Your task to perform on an android device: What's on my calendar today? Image 0: 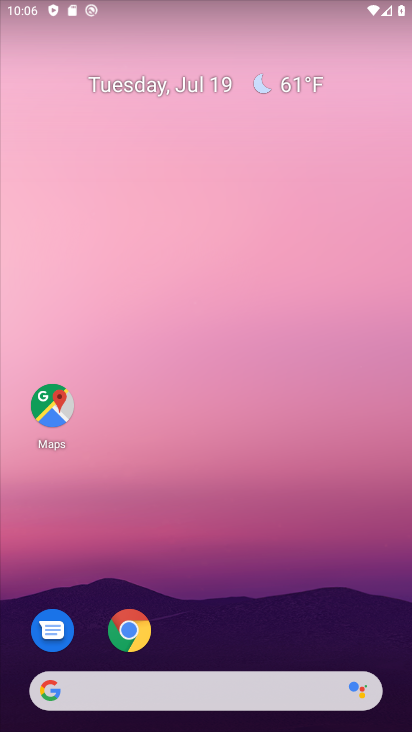
Step 0: drag from (358, 612) to (316, 199)
Your task to perform on an android device: What's on my calendar today? Image 1: 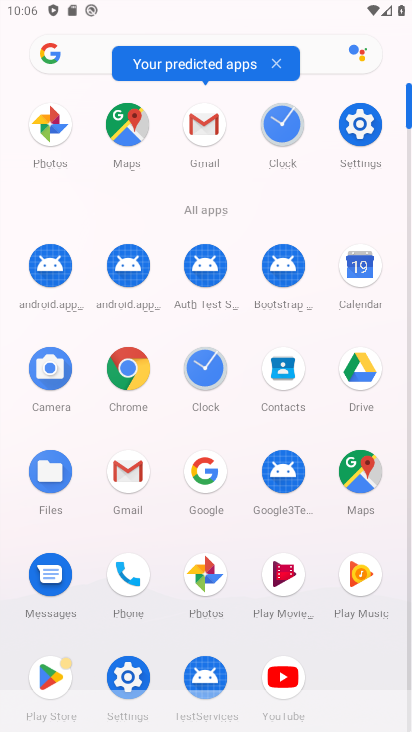
Step 1: click (355, 264)
Your task to perform on an android device: What's on my calendar today? Image 2: 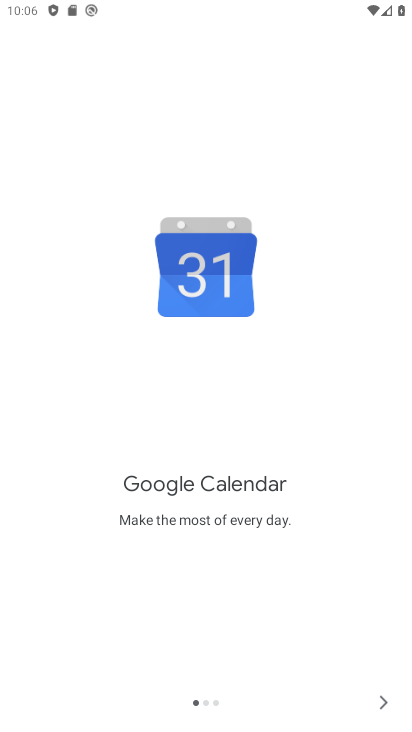
Step 2: click (381, 701)
Your task to perform on an android device: What's on my calendar today? Image 3: 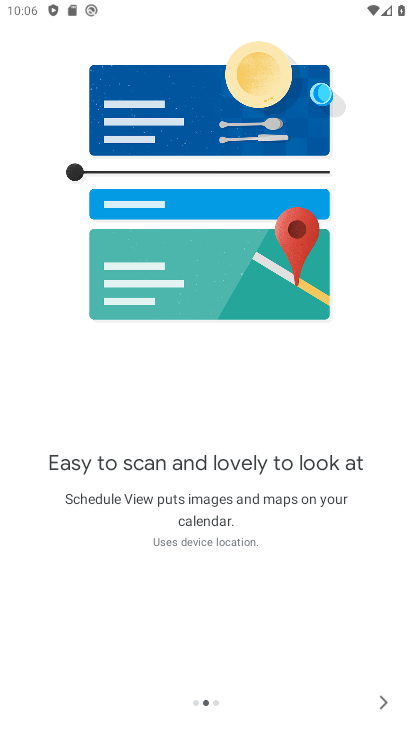
Step 3: click (386, 705)
Your task to perform on an android device: What's on my calendar today? Image 4: 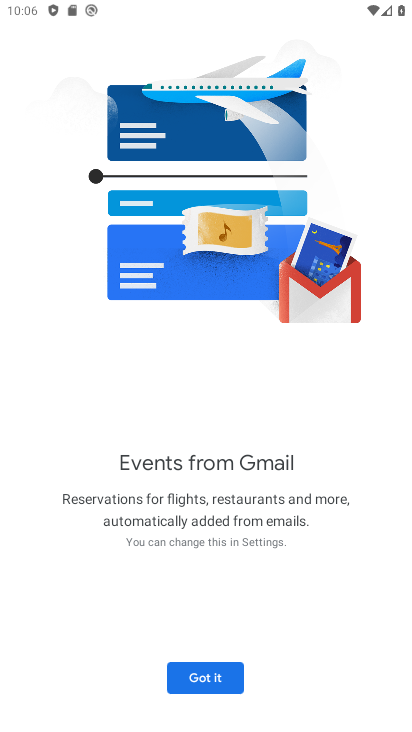
Step 4: click (213, 678)
Your task to perform on an android device: What's on my calendar today? Image 5: 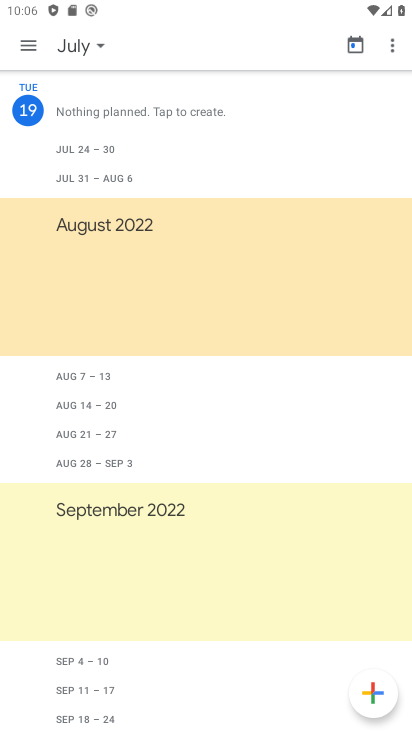
Step 5: click (26, 47)
Your task to perform on an android device: What's on my calendar today? Image 6: 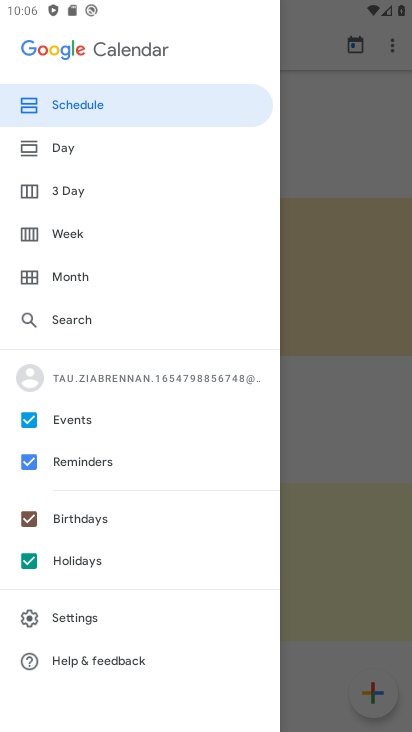
Step 6: click (61, 154)
Your task to perform on an android device: What's on my calendar today? Image 7: 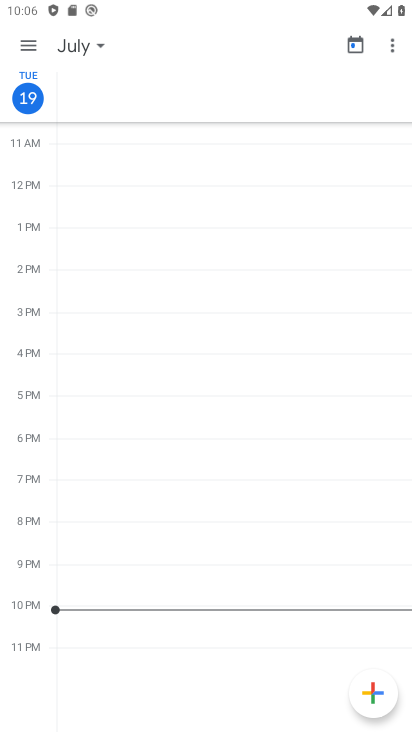
Step 7: click (136, 560)
Your task to perform on an android device: What's on my calendar today? Image 8: 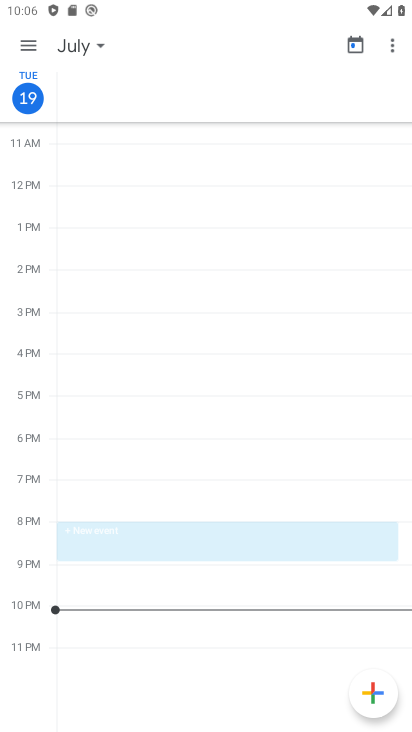
Step 8: drag from (136, 560) to (131, 682)
Your task to perform on an android device: What's on my calendar today? Image 9: 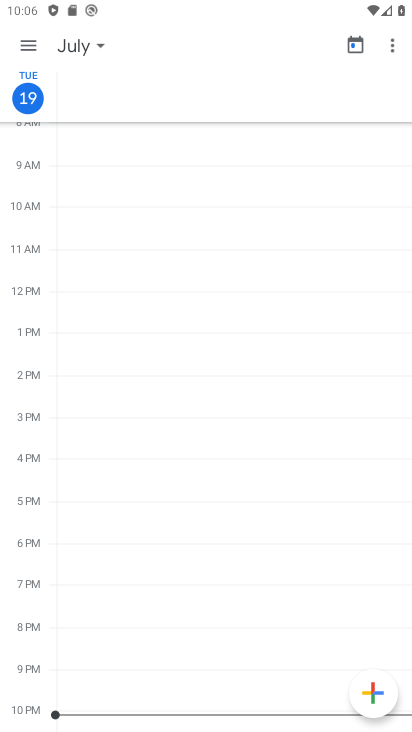
Step 9: click (137, 421)
Your task to perform on an android device: What's on my calendar today? Image 10: 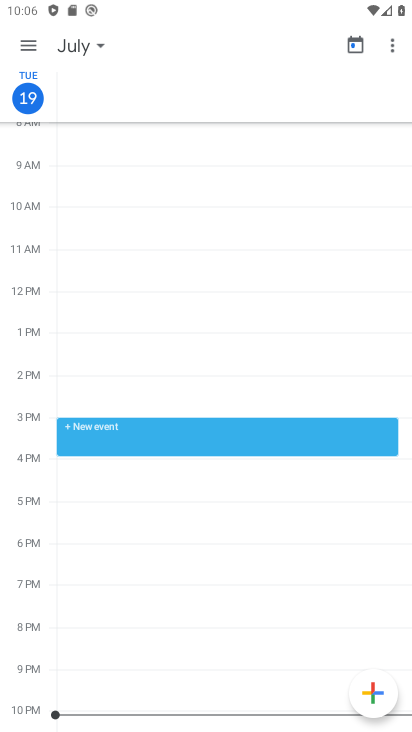
Step 10: task complete